Your task to perform on an android device: open app "AliExpress" (install if not already installed) Image 0: 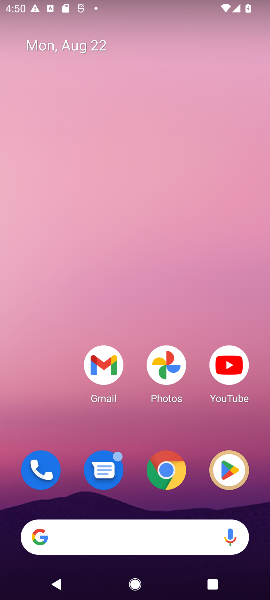
Step 0: drag from (103, 498) to (108, 51)
Your task to perform on an android device: open app "AliExpress" (install if not already installed) Image 1: 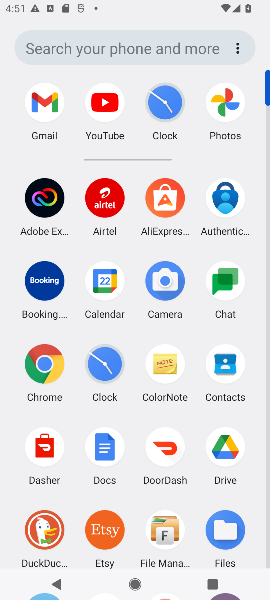
Step 1: drag from (129, 450) to (130, 151)
Your task to perform on an android device: open app "AliExpress" (install if not already installed) Image 2: 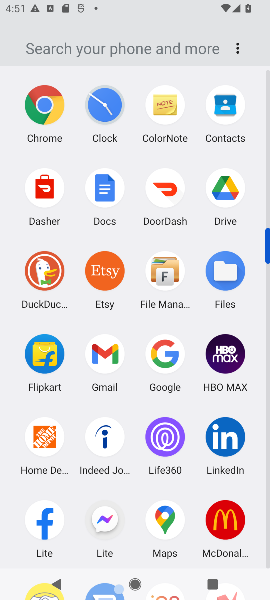
Step 2: drag from (100, 522) to (112, 125)
Your task to perform on an android device: open app "AliExpress" (install if not already installed) Image 3: 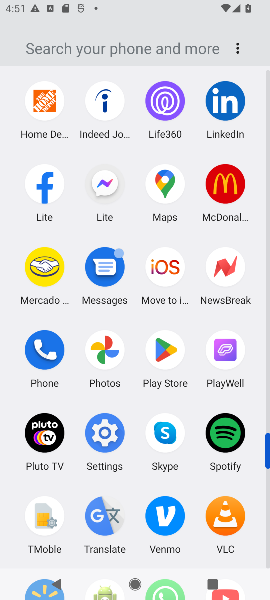
Step 3: click (162, 341)
Your task to perform on an android device: open app "AliExpress" (install if not already installed) Image 4: 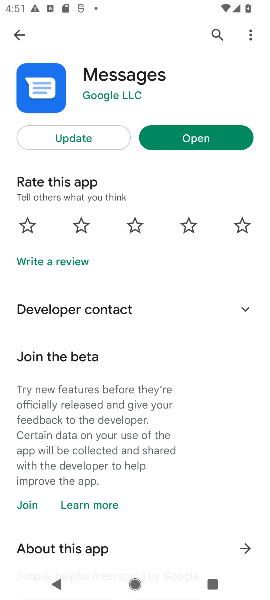
Step 4: click (22, 29)
Your task to perform on an android device: open app "AliExpress" (install if not already installed) Image 5: 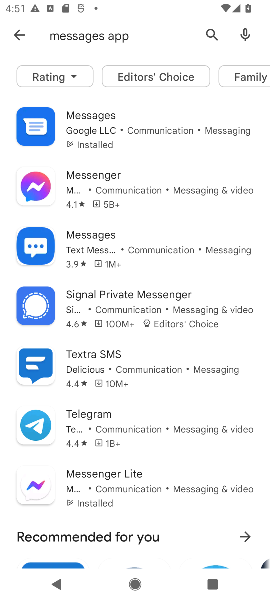
Step 5: click (22, 29)
Your task to perform on an android device: open app "AliExpress" (install if not already installed) Image 6: 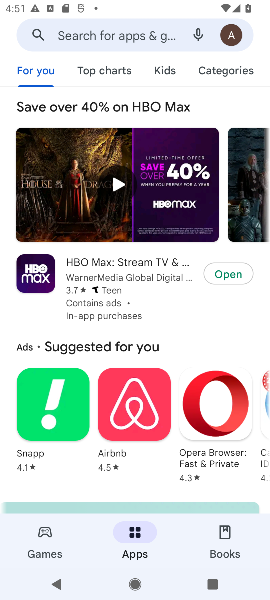
Step 6: click (125, 31)
Your task to perform on an android device: open app "AliExpress" (install if not already installed) Image 7: 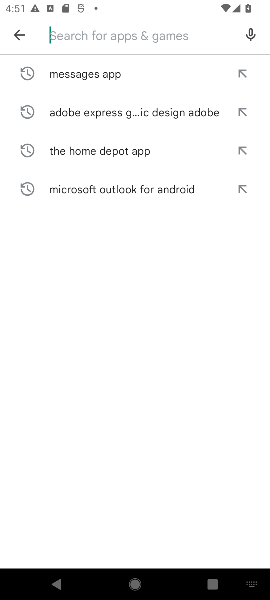
Step 7: type "AliExpress "
Your task to perform on an android device: open app "AliExpress" (install if not already installed) Image 8: 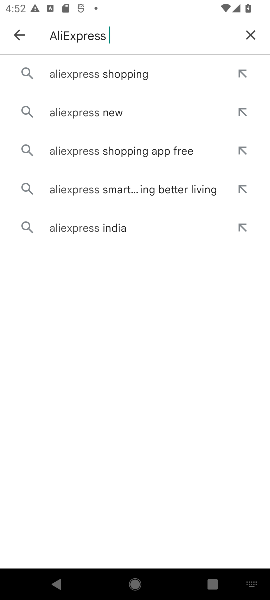
Step 8: click (94, 76)
Your task to perform on an android device: open app "AliExpress" (install if not already installed) Image 9: 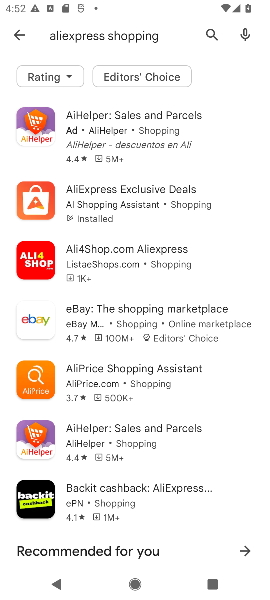
Step 9: click (109, 184)
Your task to perform on an android device: open app "AliExpress" (install if not already installed) Image 10: 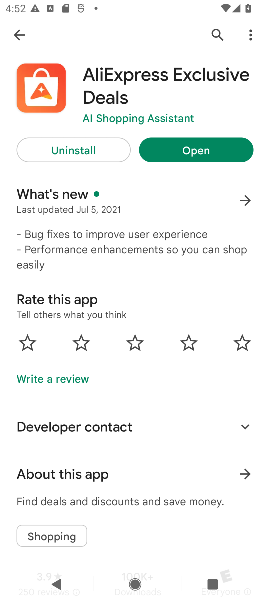
Step 10: click (172, 143)
Your task to perform on an android device: open app "AliExpress" (install if not already installed) Image 11: 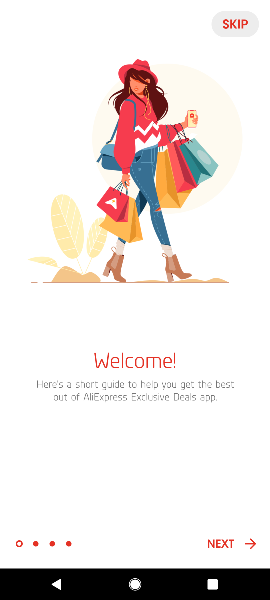
Step 11: click (211, 545)
Your task to perform on an android device: open app "AliExpress" (install if not already installed) Image 12: 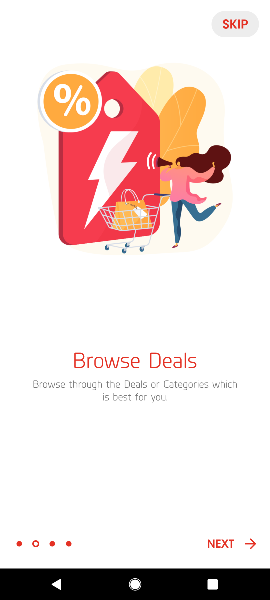
Step 12: task complete